Your task to perform on an android device: Open Android settings Image 0: 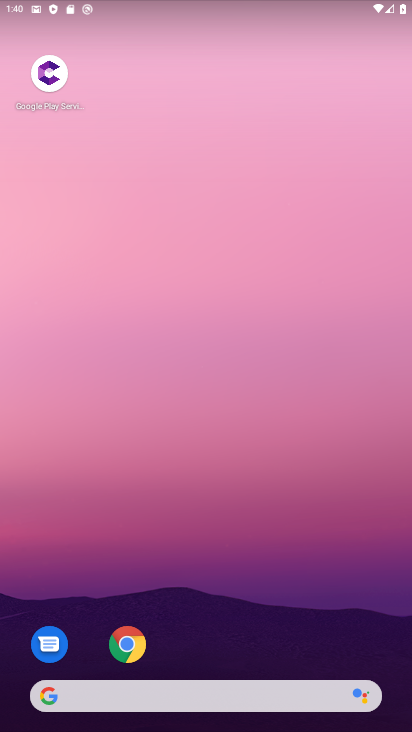
Step 0: drag from (266, 655) to (234, 189)
Your task to perform on an android device: Open Android settings Image 1: 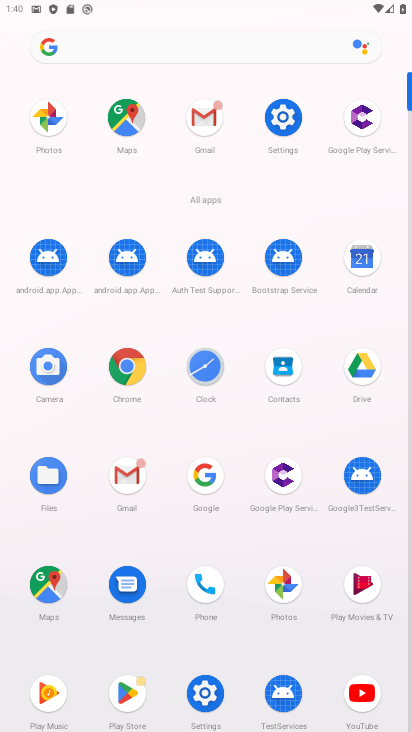
Step 1: click (280, 118)
Your task to perform on an android device: Open Android settings Image 2: 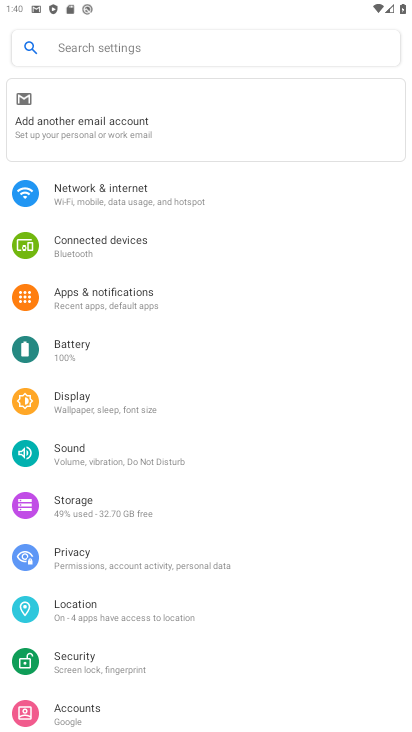
Step 2: task complete